Your task to perform on an android device: show emergency info Image 0: 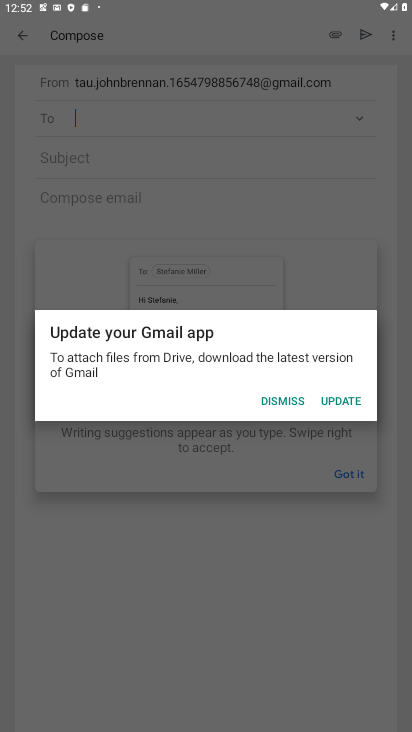
Step 0: press home button
Your task to perform on an android device: show emergency info Image 1: 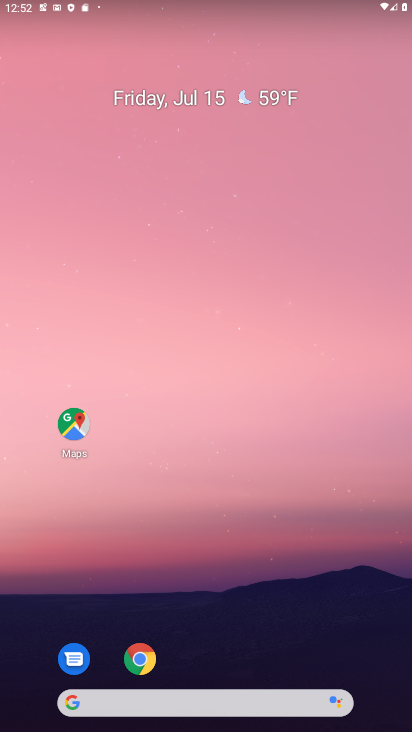
Step 1: drag from (224, 730) to (258, 273)
Your task to perform on an android device: show emergency info Image 2: 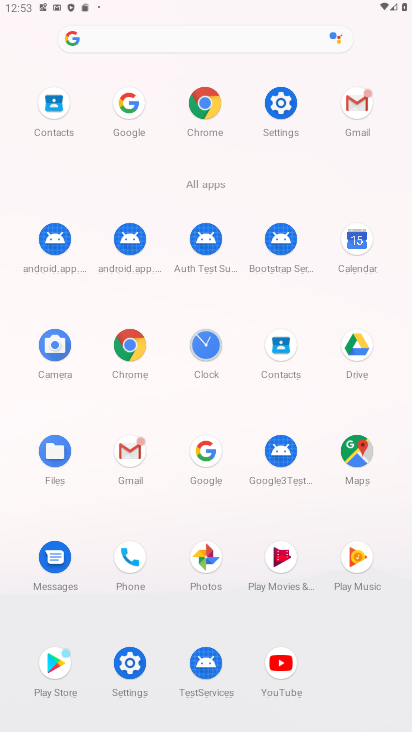
Step 2: click (268, 111)
Your task to perform on an android device: show emergency info Image 3: 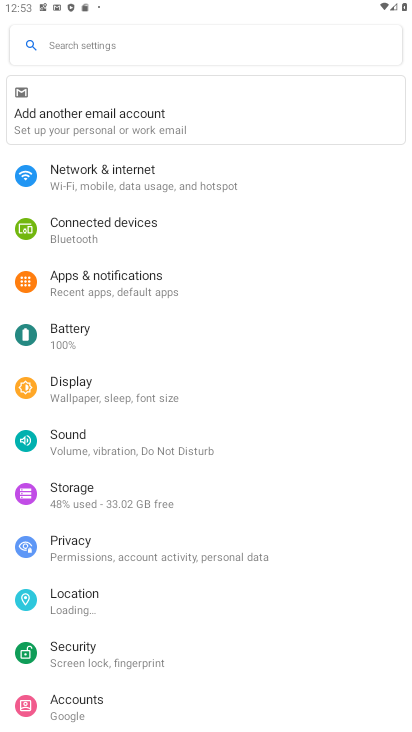
Step 3: drag from (161, 695) to (152, 361)
Your task to perform on an android device: show emergency info Image 4: 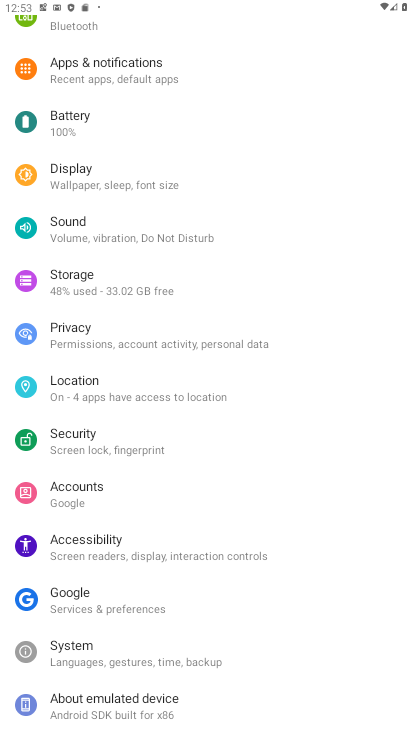
Step 4: click (147, 706)
Your task to perform on an android device: show emergency info Image 5: 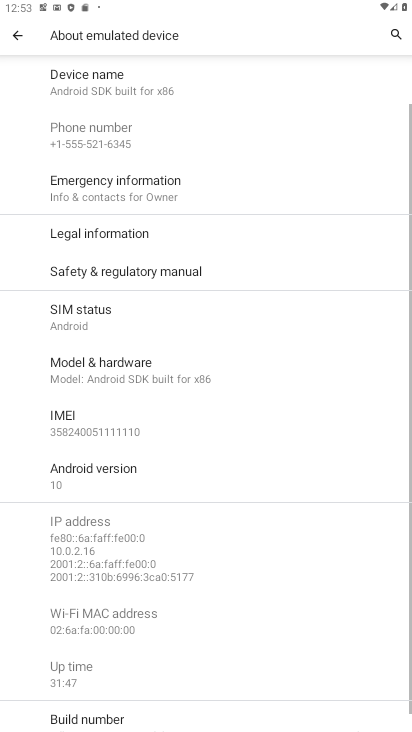
Step 5: click (103, 183)
Your task to perform on an android device: show emergency info Image 6: 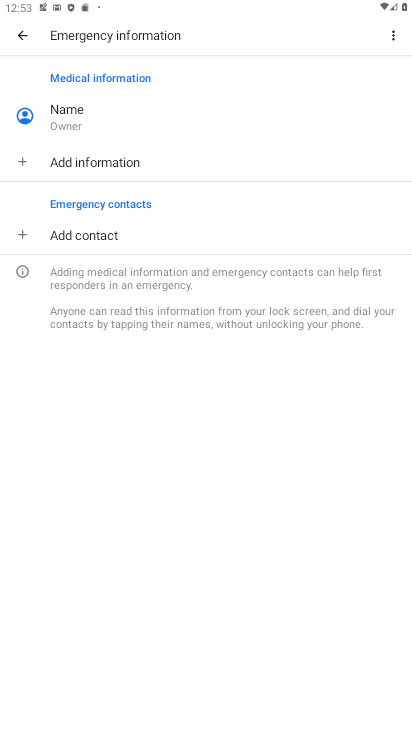
Step 6: task complete